Your task to perform on an android device: Go to Google Image 0: 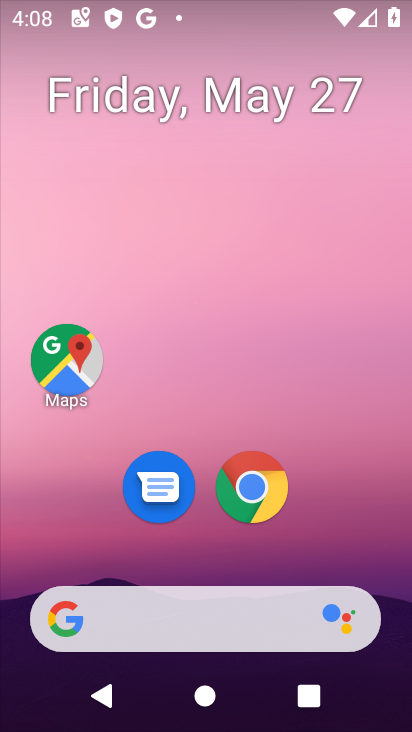
Step 0: drag from (329, 507) to (310, 29)
Your task to perform on an android device: Go to Google Image 1: 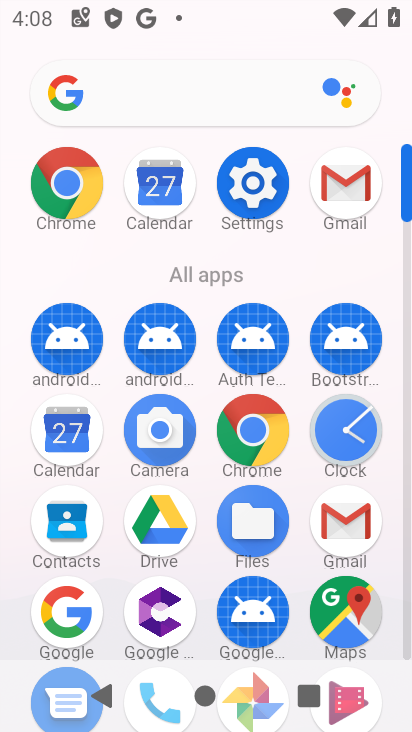
Step 1: click (60, 633)
Your task to perform on an android device: Go to Google Image 2: 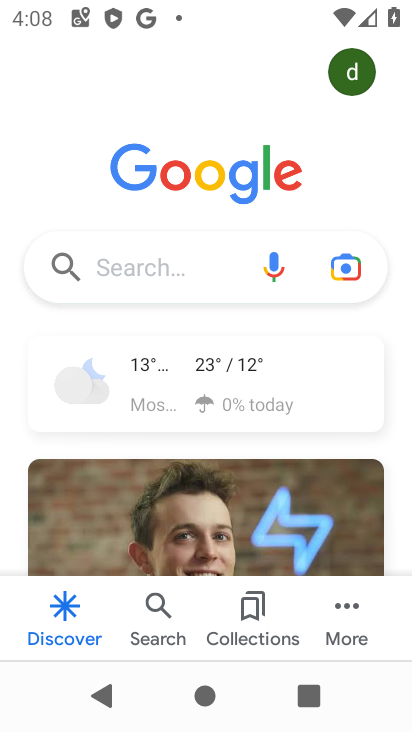
Step 2: task complete